Your task to perform on an android device: make emails show in primary in the gmail app Image 0: 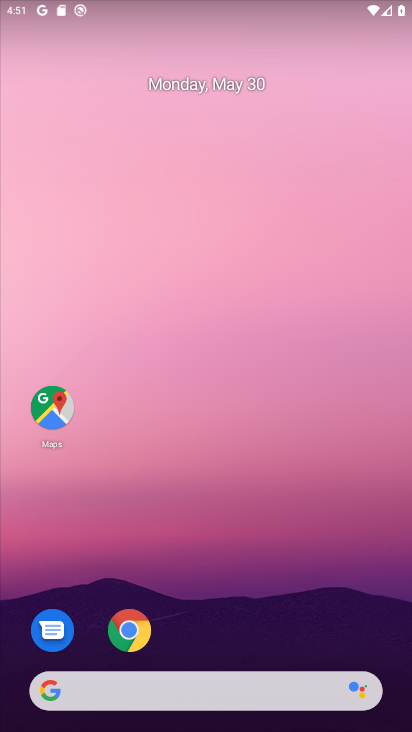
Step 0: press home button
Your task to perform on an android device: make emails show in primary in the gmail app Image 1: 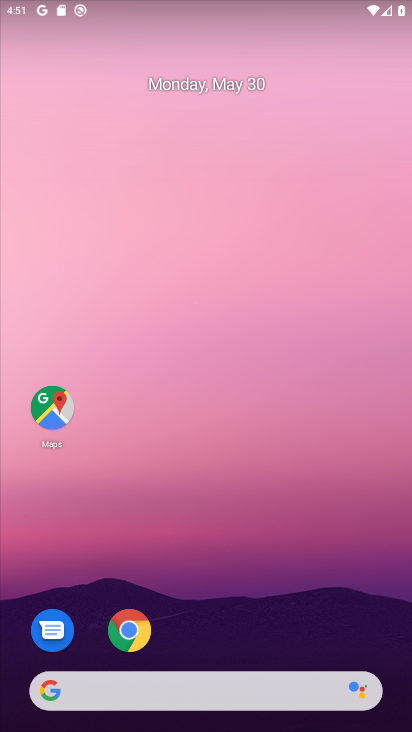
Step 1: drag from (237, 626) to (248, 230)
Your task to perform on an android device: make emails show in primary in the gmail app Image 2: 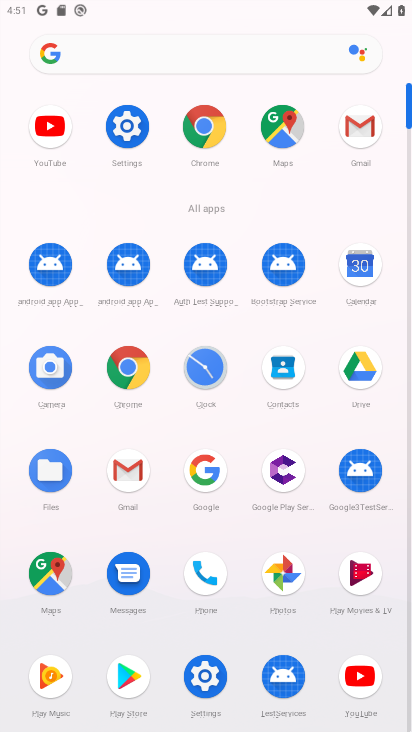
Step 2: click (357, 129)
Your task to perform on an android device: make emails show in primary in the gmail app Image 3: 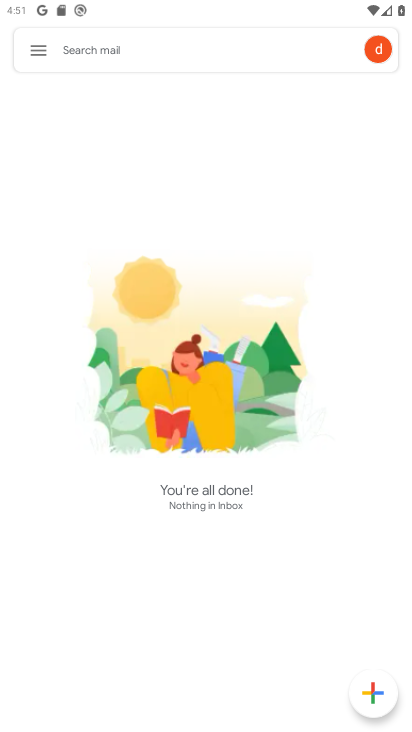
Step 3: click (30, 50)
Your task to perform on an android device: make emails show in primary in the gmail app Image 4: 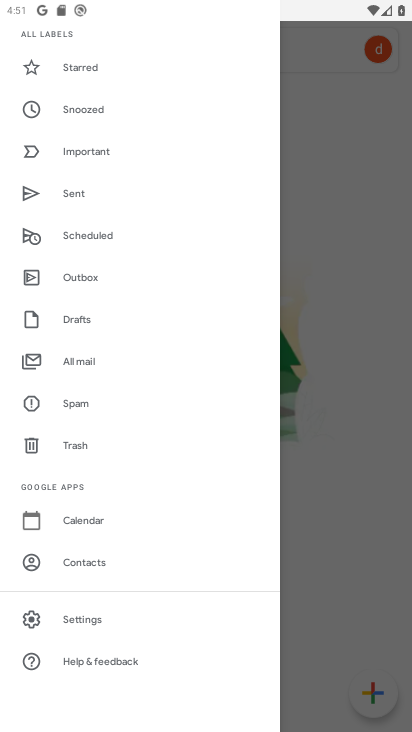
Step 4: click (93, 619)
Your task to perform on an android device: make emails show in primary in the gmail app Image 5: 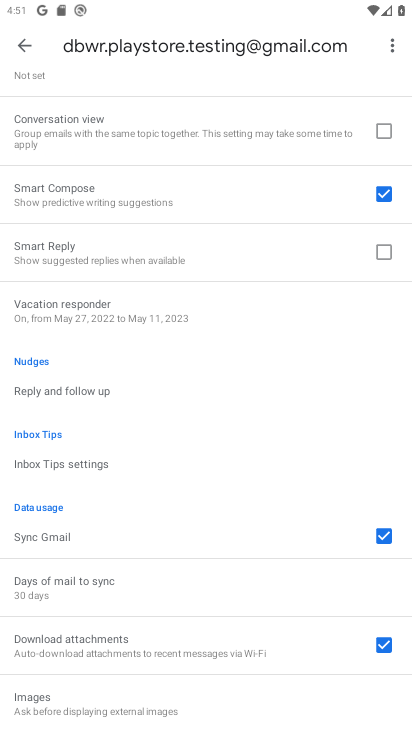
Step 5: task complete